Your task to perform on an android device: see sites visited before in the chrome app Image 0: 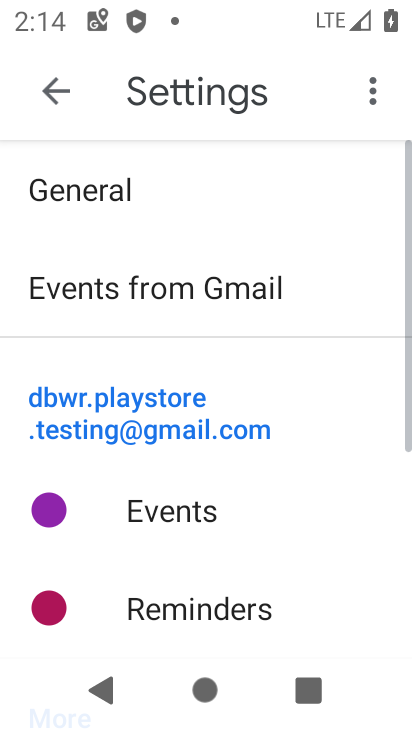
Step 0: press home button
Your task to perform on an android device: see sites visited before in the chrome app Image 1: 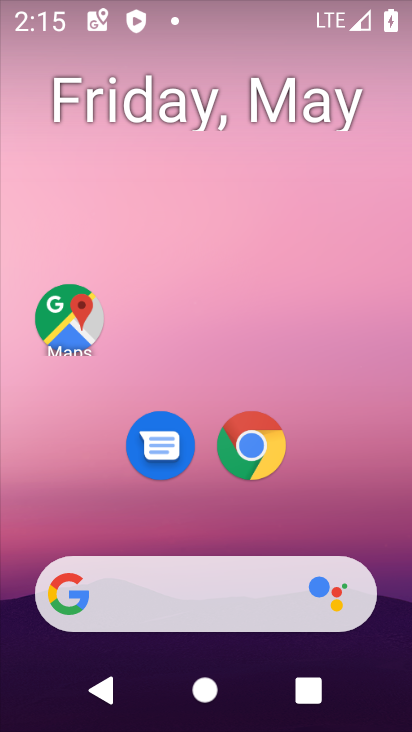
Step 1: click (252, 434)
Your task to perform on an android device: see sites visited before in the chrome app Image 2: 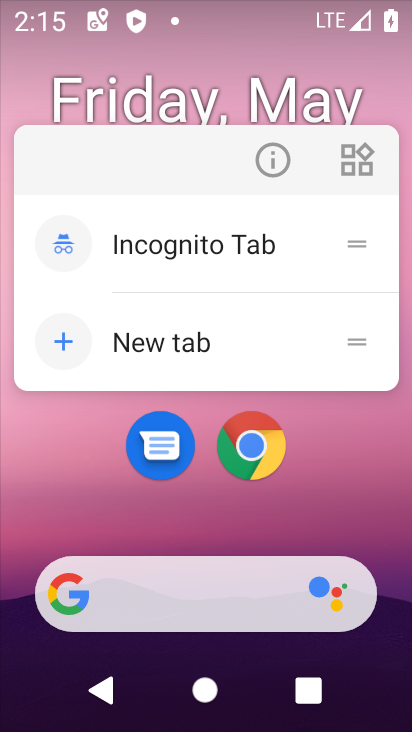
Step 2: click (249, 444)
Your task to perform on an android device: see sites visited before in the chrome app Image 3: 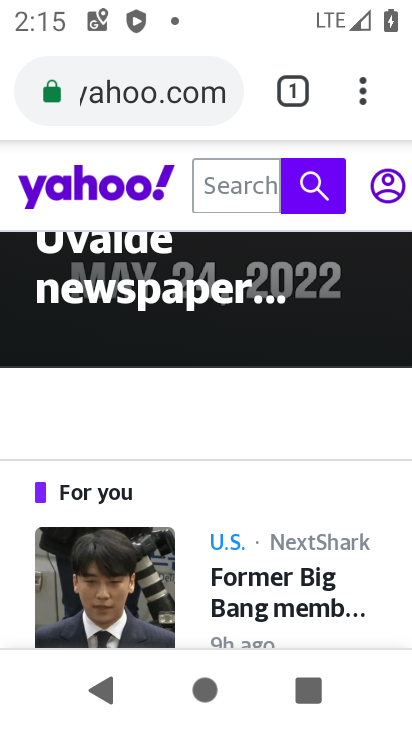
Step 3: click (370, 88)
Your task to perform on an android device: see sites visited before in the chrome app Image 4: 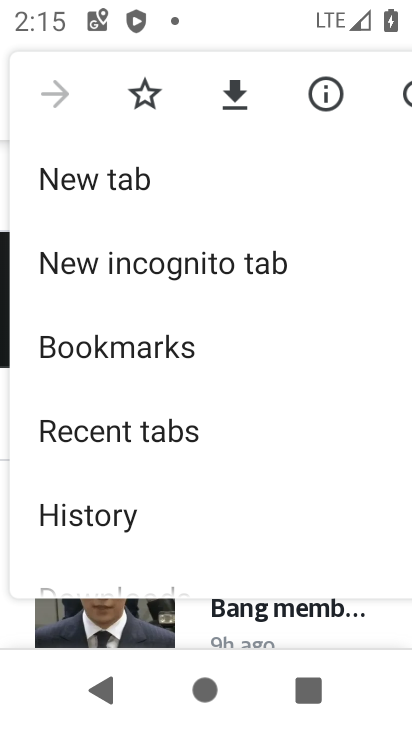
Step 4: click (151, 505)
Your task to perform on an android device: see sites visited before in the chrome app Image 5: 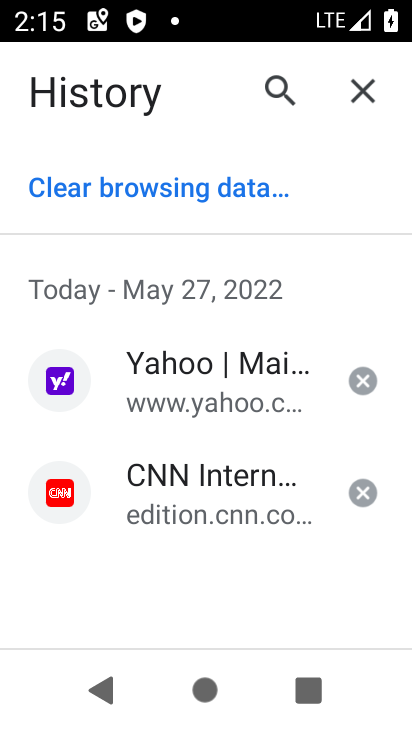
Step 5: task complete